Your task to perform on an android device: open app "Grab" Image 0: 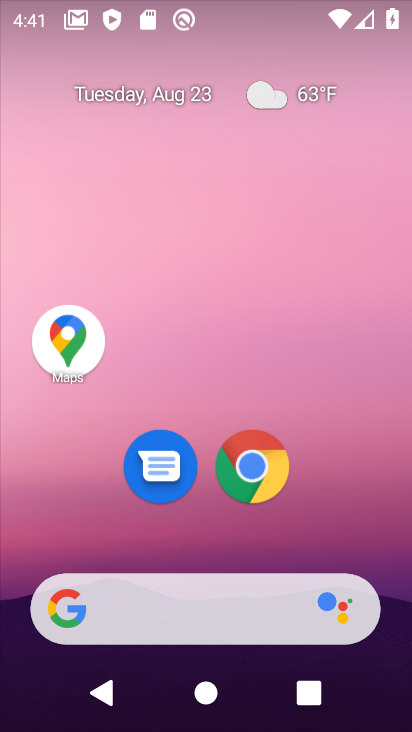
Step 0: drag from (215, 536) to (228, 0)
Your task to perform on an android device: open app "Grab" Image 1: 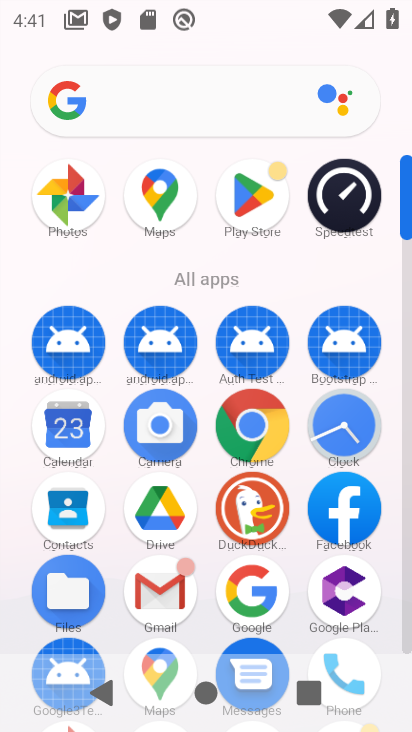
Step 1: click (255, 221)
Your task to perform on an android device: open app "Grab" Image 2: 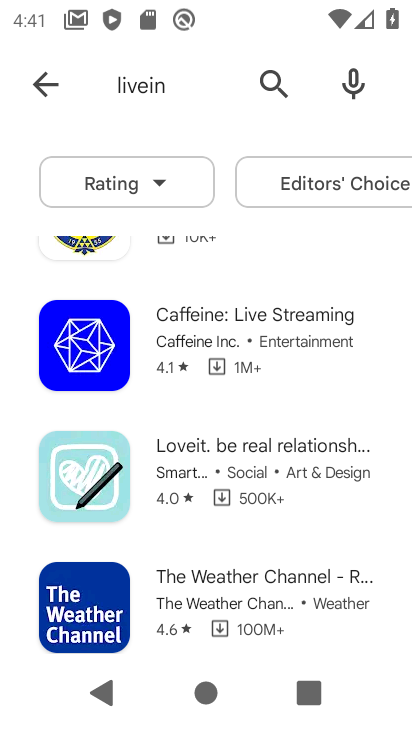
Step 2: click (154, 76)
Your task to perform on an android device: open app "Grab" Image 3: 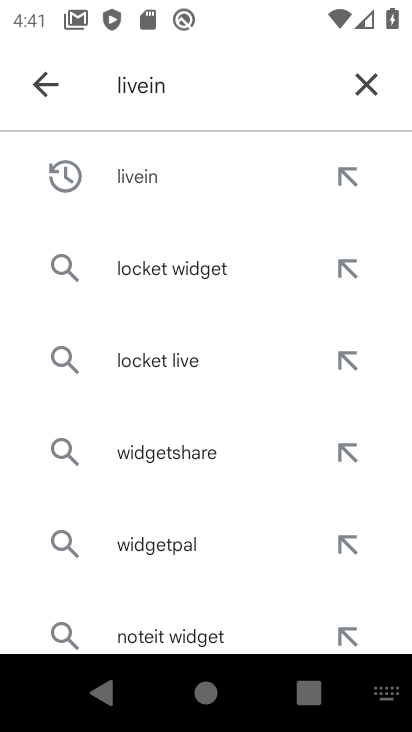
Step 3: click (364, 80)
Your task to perform on an android device: open app "Grab" Image 4: 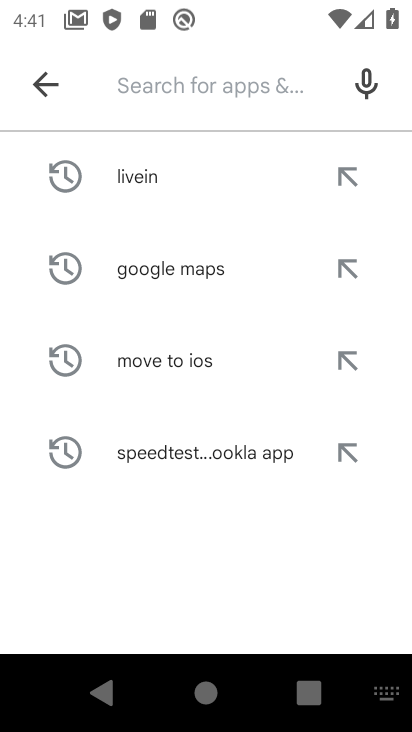
Step 4: type "Grab"
Your task to perform on an android device: open app "Grab" Image 5: 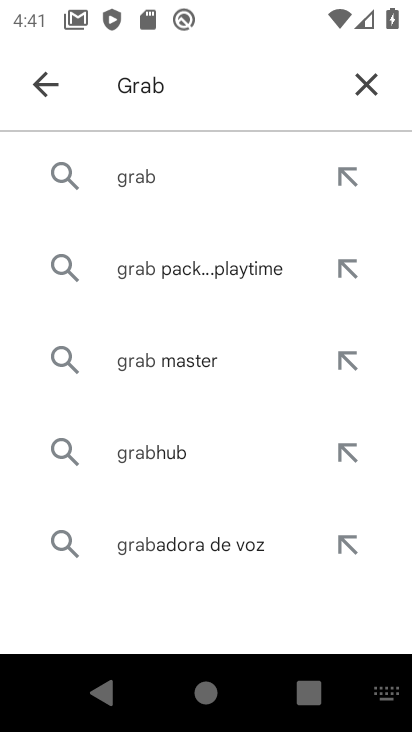
Step 5: click (115, 185)
Your task to perform on an android device: open app "Grab" Image 6: 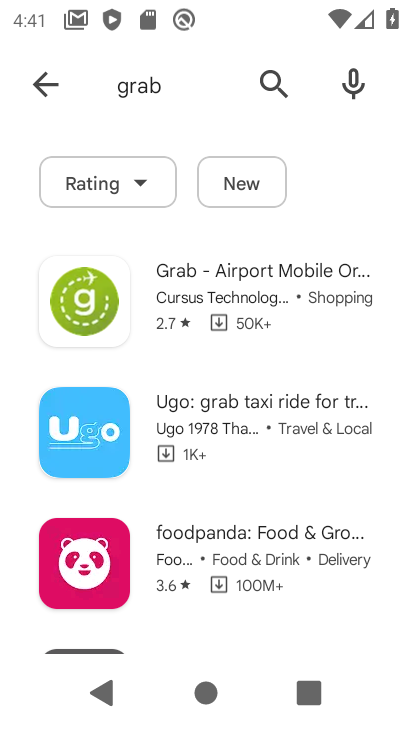
Step 6: click (201, 302)
Your task to perform on an android device: open app "Grab" Image 7: 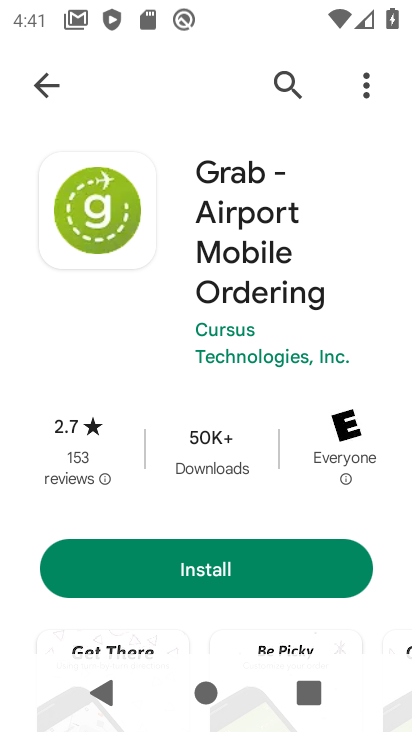
Step 7: task complete